Your task to perform on an android device: turn off airplane mode Image 0: 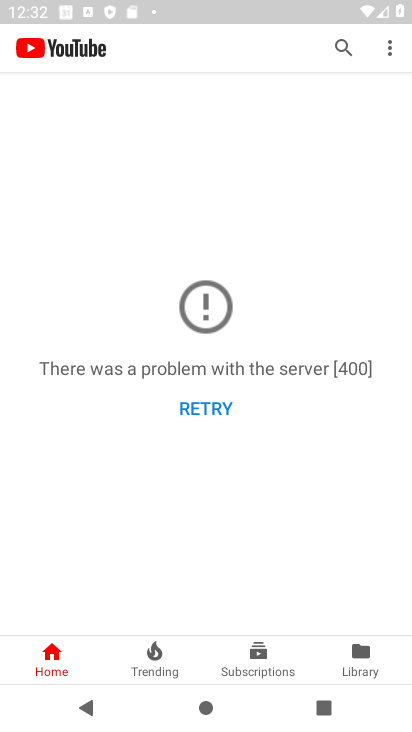
Step 0: press home button
Your task to perform on an android device: turn off airplane mode Image 1: 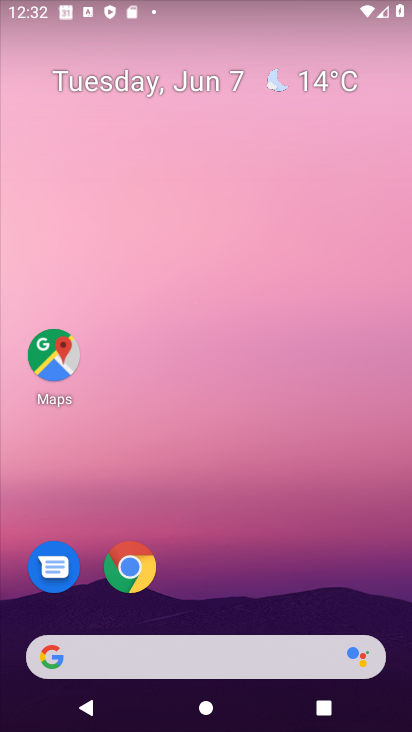
Step 1: drag from (300, 626) to (355, 168)
Your task to perform on an android device: turn off airplane mode Image 2: 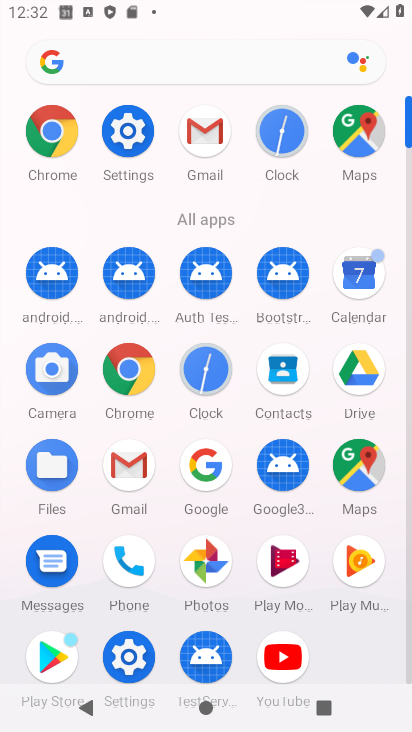
Step 2: click (113, 125)
Your task to perform on an android device: turn off airplane mode Image 3: 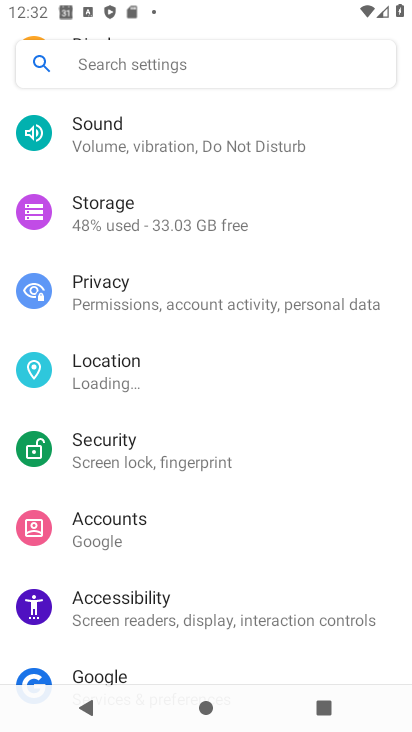
Step 3: drag from (121, 135) to (226, 701)
Your task to perform on an android device: turn off airplane mode Image 4: 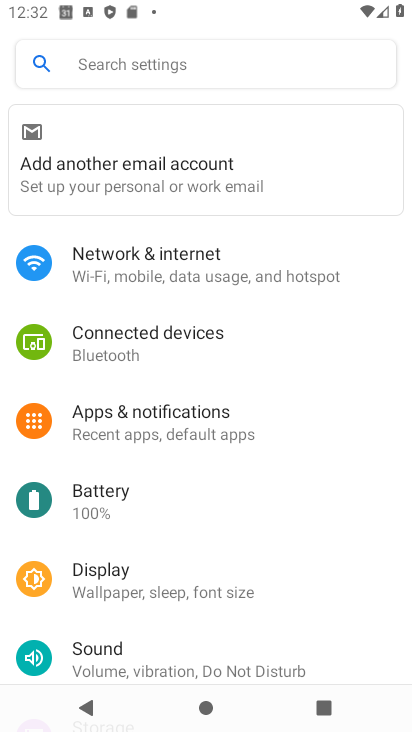
Step 4: click (205, 256)
Your task to perform on an android device: turn off airplane mode Image 5: 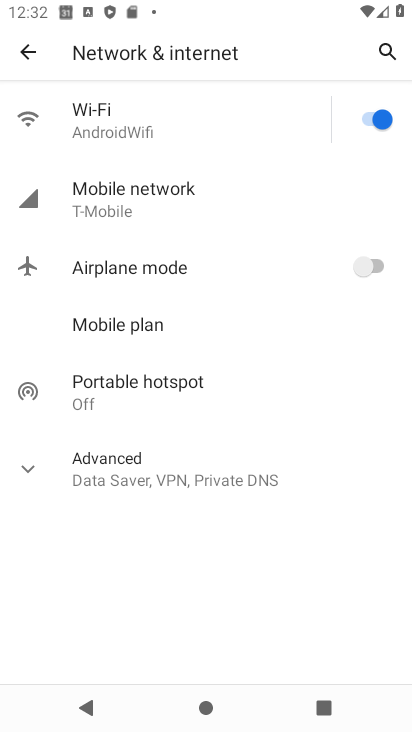
Step 5: task complete